Your task to perform on an android device: toggle data saver in the chrome app Image 0: 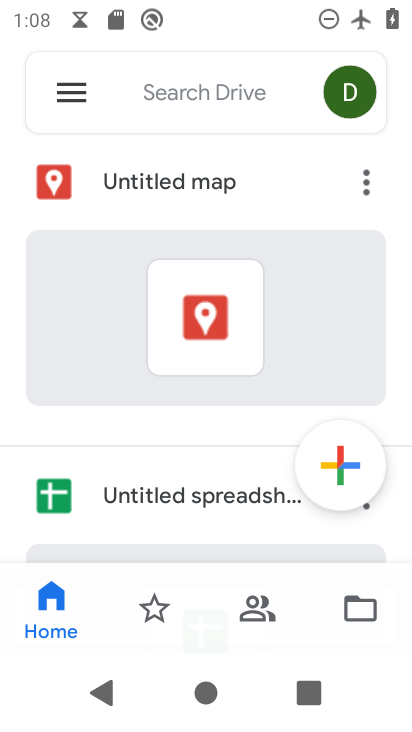
Step 0: press home button
Your task to perform on an android device: toggle data saver in the chrome app Image 1: 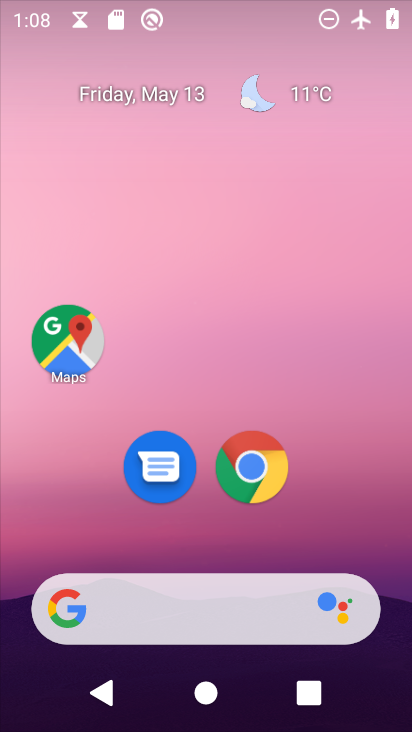
Step 1: click (244, 482)
Your task to perform on an android device: toggle data saver in the chrome app Image 2: 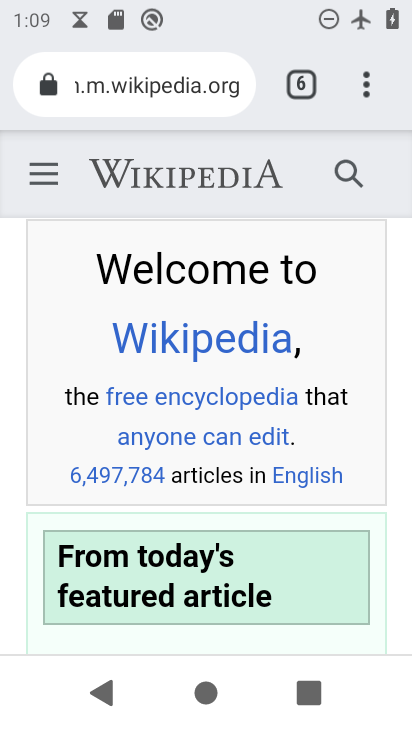
Step 2: click (365, 88)
Your task to perform on an android device: toggle data saver in the chrome app Image 3: 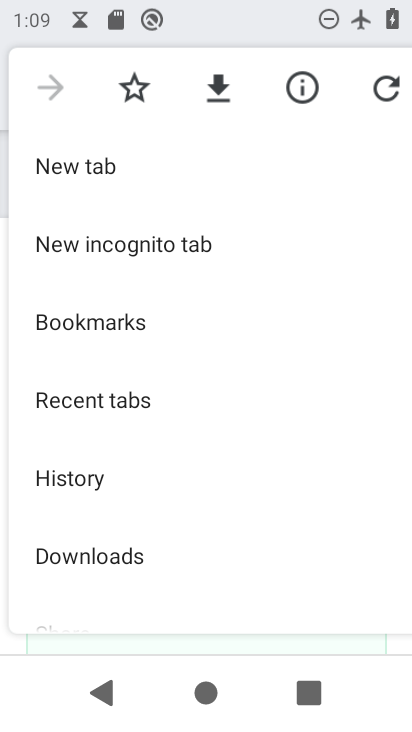
Step 3: drag from (244, 493) to (212, 174)
Your task to perform on an android device: toggle data saver in the chrome app Image 4: 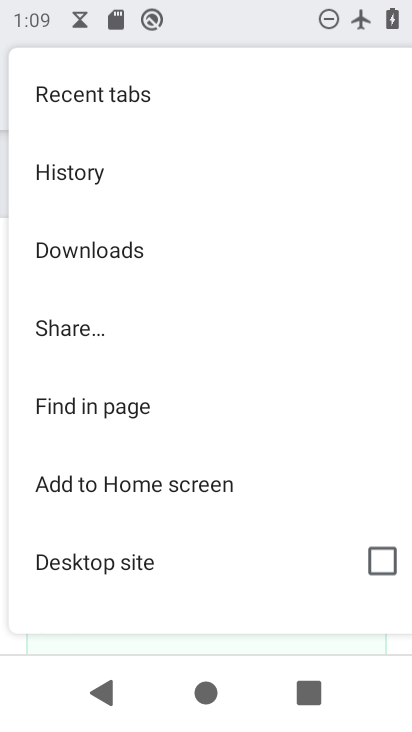
Step 4: drag from (218, 516) to (209, 129)
Your task to perform on an android device: toggle data saver in the chrome app Image 5: 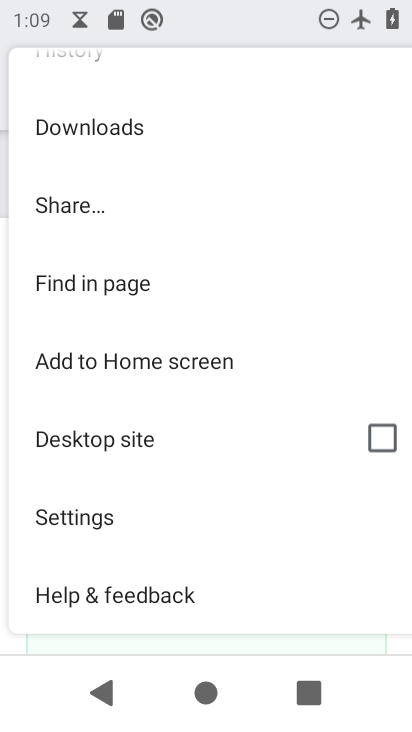
Step 5: click (153, 511)
Your task to perform on an android device: toggle data saver in the chrome app Image 6: 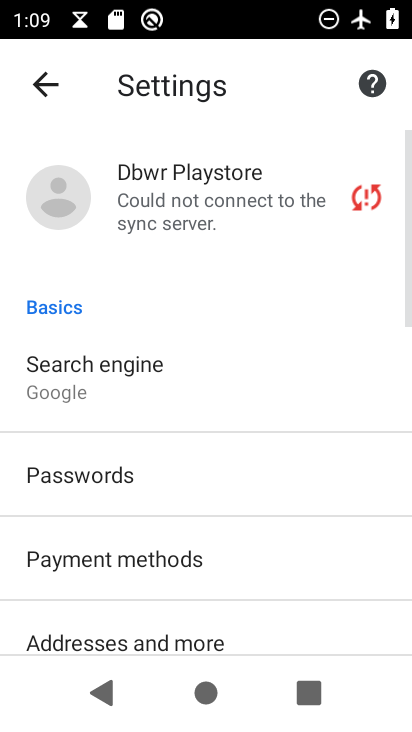
Step 6: drag from (202, 586) to (193, 195)
Your task to perform on an android device: toggle data saver in the chrome app Image 7: 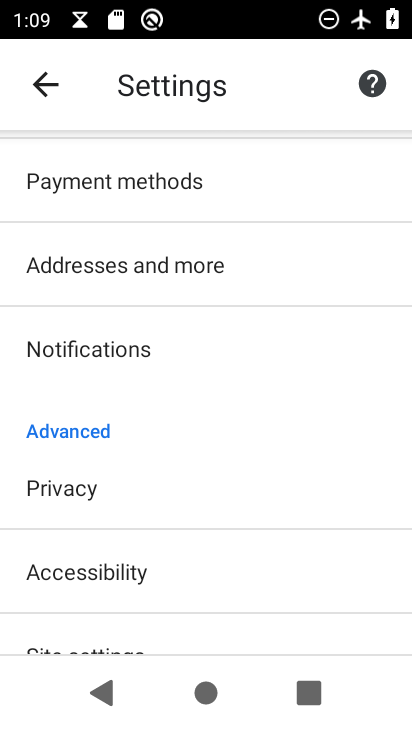
Step 7: drag from (174, 541) to (214, 211)
Your task to perform on an android device: toggle data saver in the chrome app Image 8: 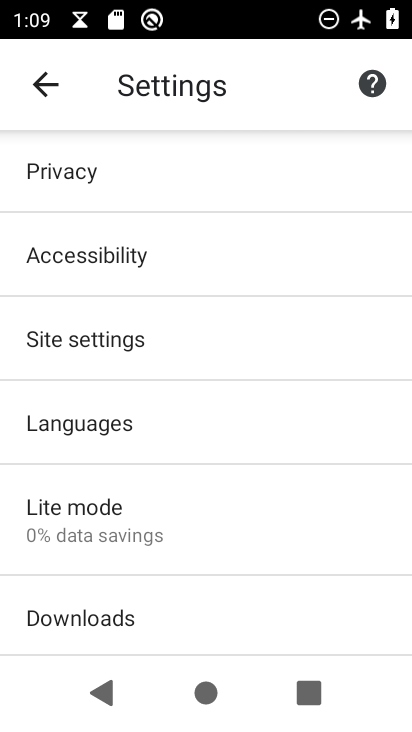
Step 8: click (125, 520)
Your task to perform on an android device: toggle data saver in the chrome app Image 9: 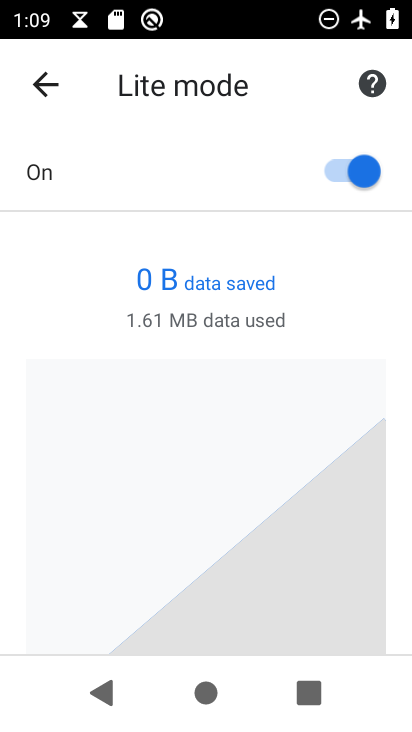
Step 9: click (347, 172)
Your task to perform on an android device: toggle data saver in the chrome app Image 10: 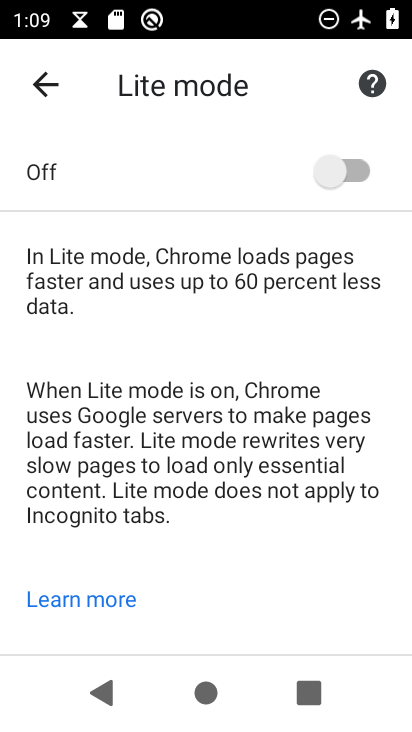
Step 10: task complete